Your task to perform on an android device: When is my next meeting? Image 0: 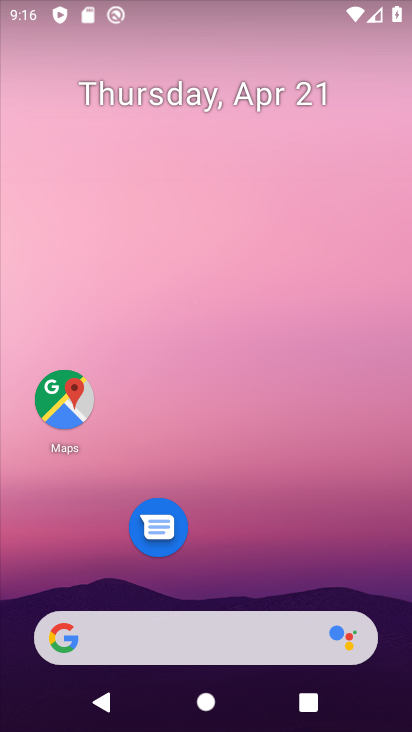
Step 0: drag from (190, 592) to (231, 81)
Your task to perform on an android device: When is my next meeting? Image 1: 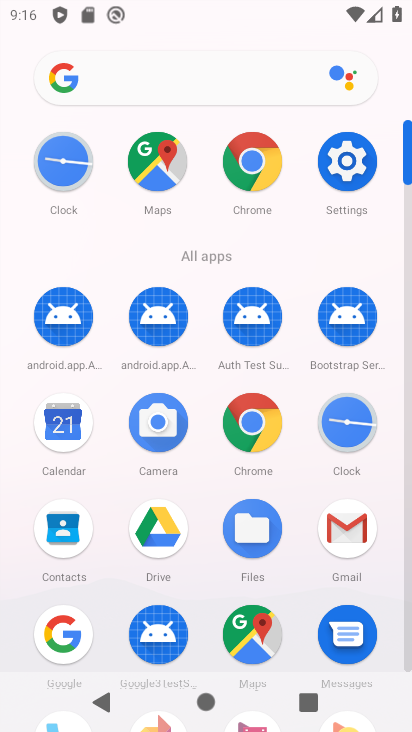
Step 1: click (70, 402)
Your task to perform on an android device: When is my next meeting? Image 2: 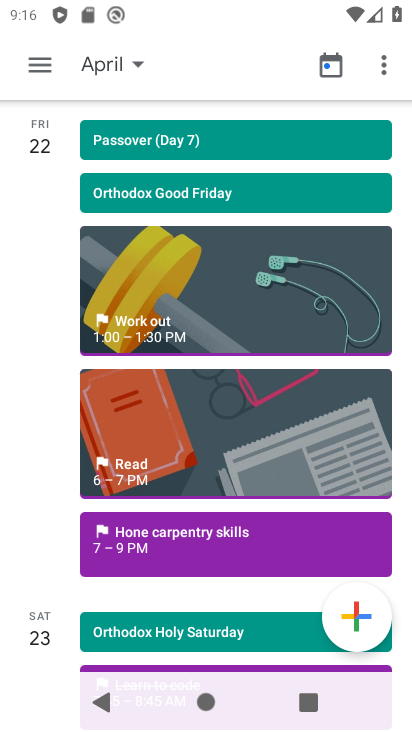
Step 2: click (125, 68)
Your task to perform on an android device: When is my next meeting? Image 3: 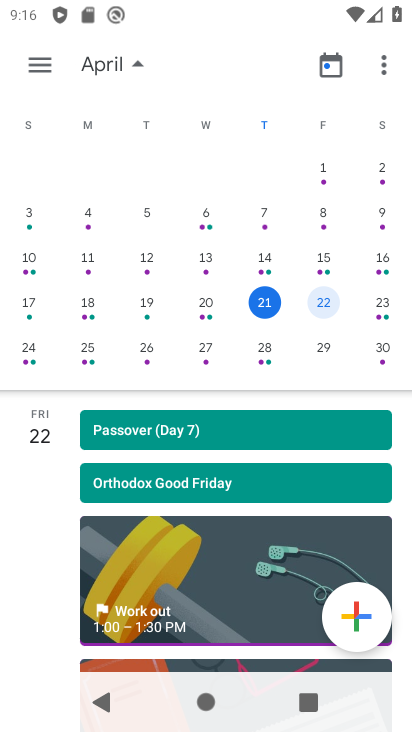
Step 3: click (314, 304)
Your task to perform on an android device: When is my next meeting? Image 4: 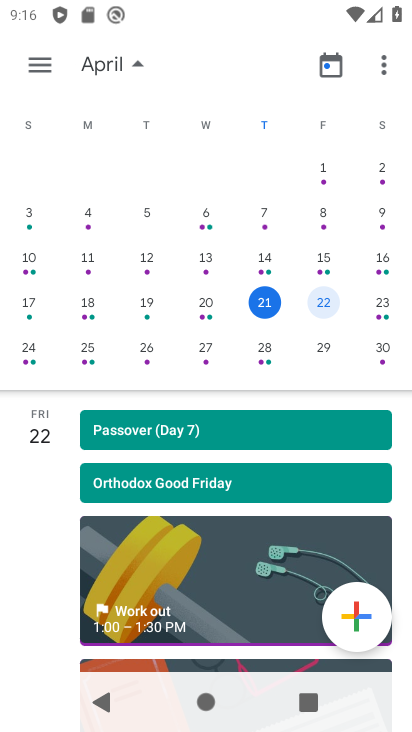
Step 4: click (374, 318)
Your task to perform on an android device: When is my next meeting? Image 5: 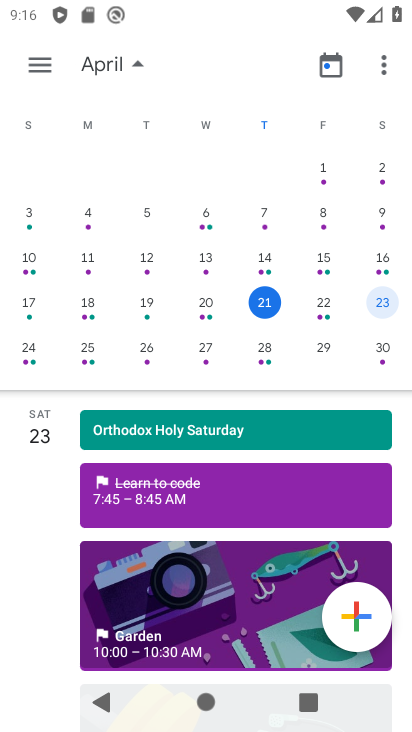
Step 5: click (33, 348)
Your task to perform on an android device: When is my next meeting? Image 6: 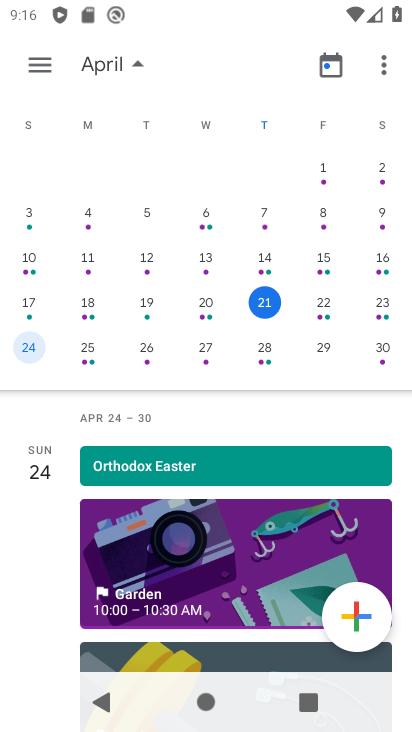
Step 6: click (73, 352)
Your task to perform on an android device: When is my next meeting? Image 7: 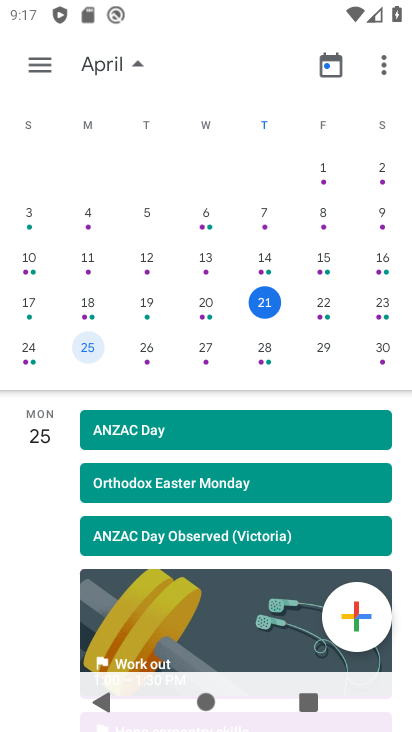
Step 7: click (157, 347)
Your task to perform on an android device: When is my next meeting? Image 8: 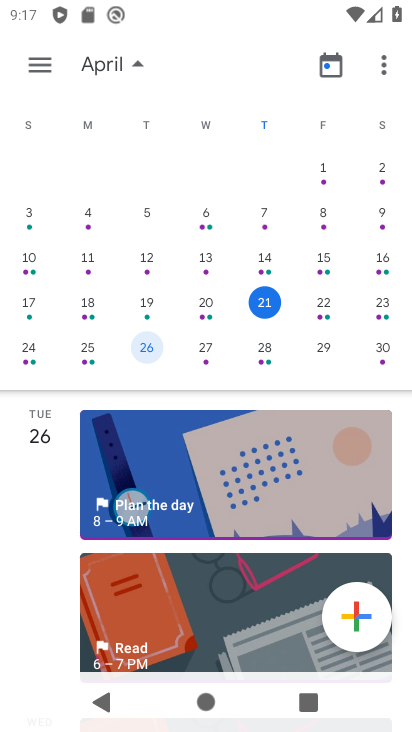
Step 8: click (192, 346)
Your task to perform on an android device: When is my next meeting? Image 9: 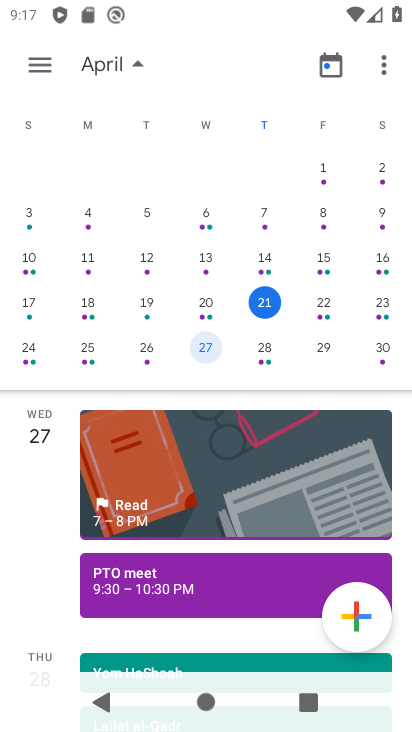
Step 9: click (255, 356)
Your task to perform on an android device: When is my next meeting? Image 10: 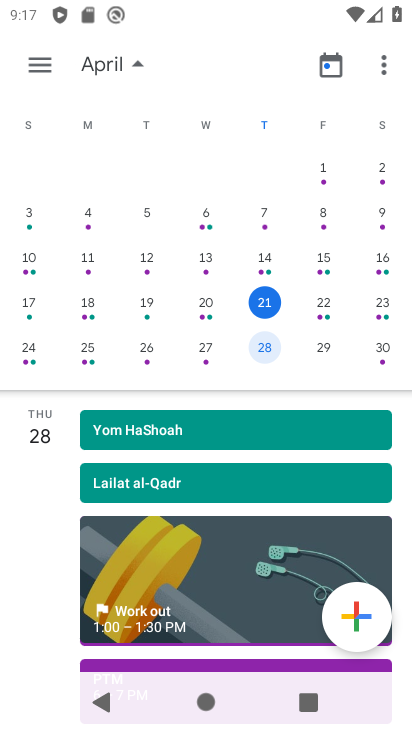
Step 10: click (320, 340)
Your task to perform on an android device: When is my next meeting? Image 11: 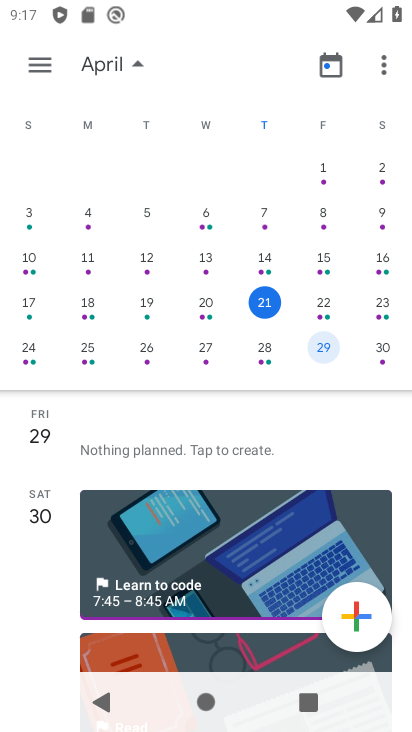
Step 11: click (325, 278)
Your task to perform on an android device: When is my next meeting? Image 12: 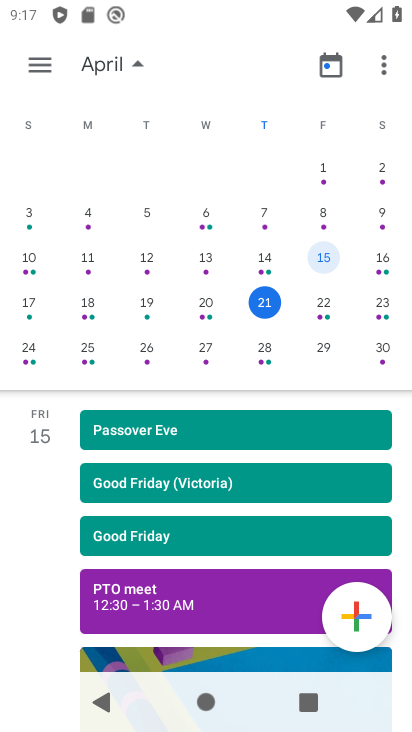
Step 12: click (319, 297)
Your task to perform on an android device: When is my next meeting? Image 13: 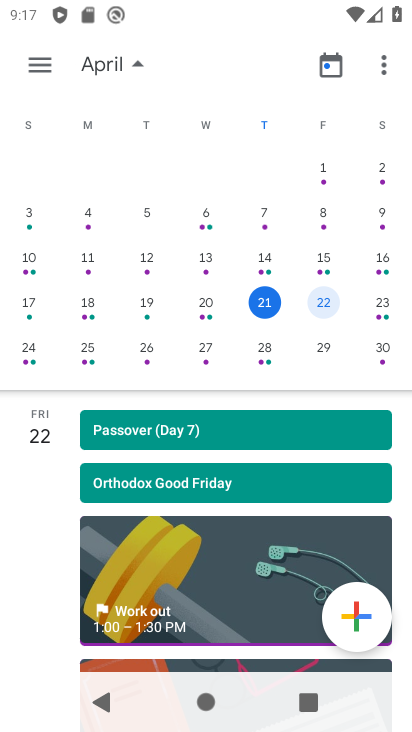
Step 13: click (371, 313)
Your task to perform on an android device: When is my next meeting? Image 14: 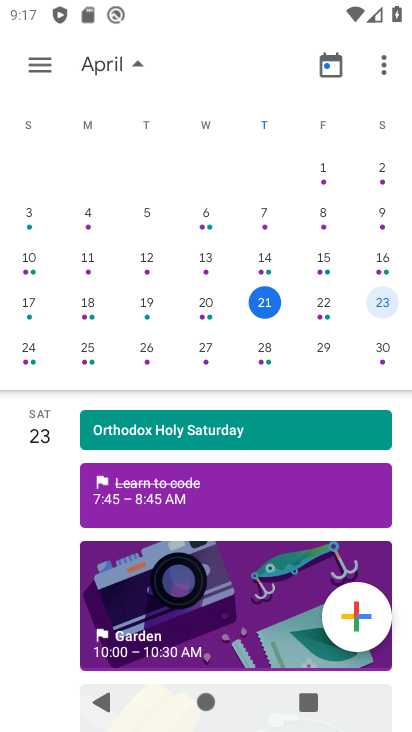
Step 14: click (40, 347)
Your task to perform on an android device: When is my next meeting? Image 15: 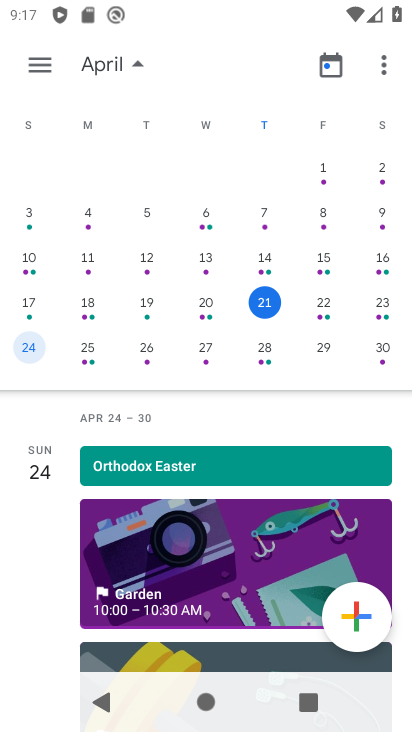
Step 15: click (83, 347)
Your task to perform on an android device: When is my next meeting? Image 16: 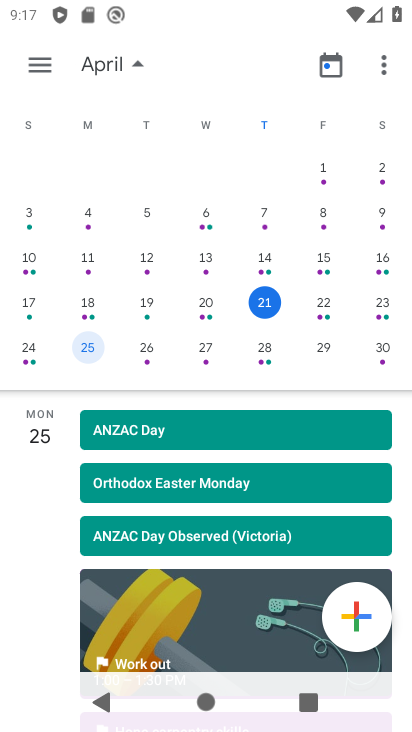
Step 16: click (93, 310)
Your task to perform on an android device: When is my next meeting? Image 17: 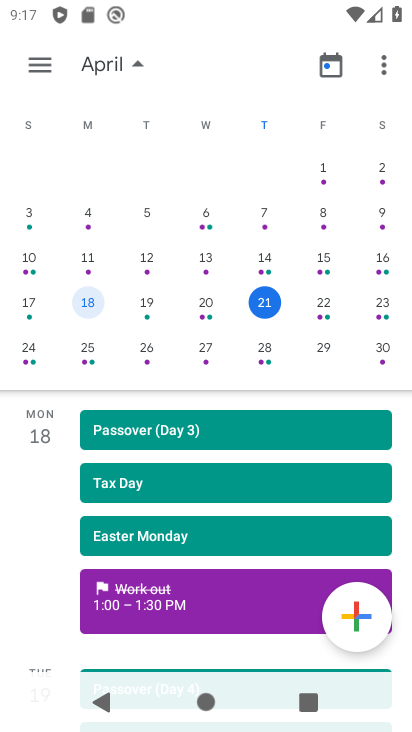
Step 17: click (94, 344)
Your task to perform on an android device: When is my next meeting? Image 18: 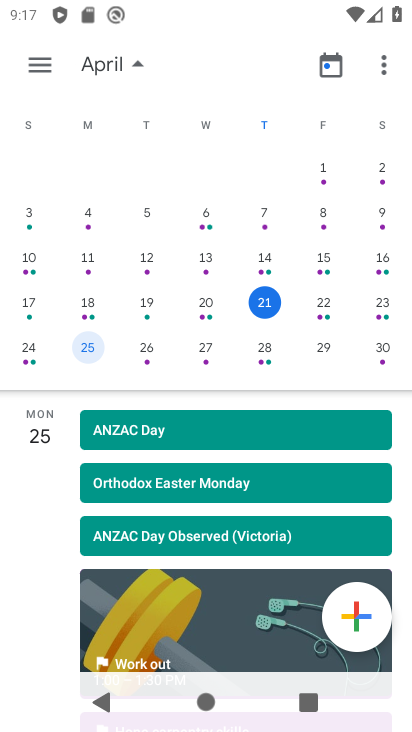
Step 18: drag from (229, 572) to (244, 510)
Your task to perform on an android device: When is my next meeting? Image 19: 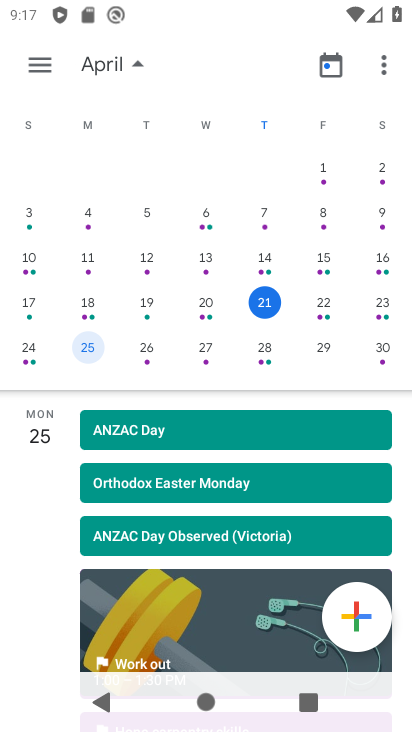
Step 19: click (149, 288)
Your task to perform on an android device: When is my next meeting? Image 20: 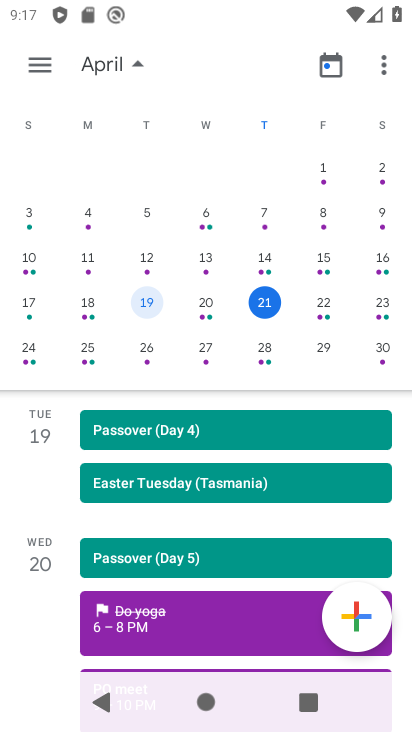
Step 20: click (156, 339)
Your task to perform on an android device: When is my next meeting? Image 21: 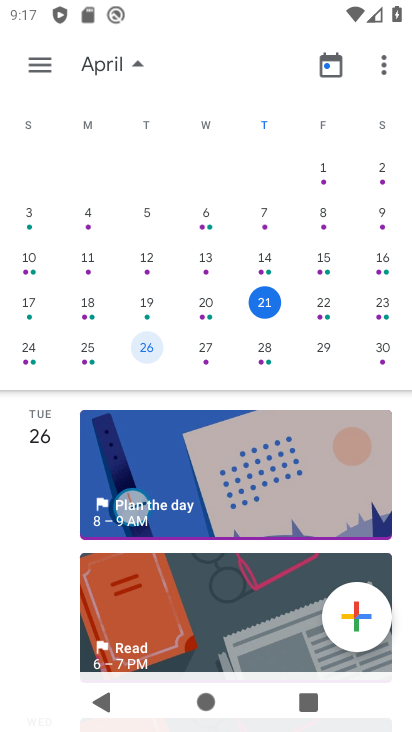
Step 21: click (200, 341)
Your task to perform on an android device: When is my next meeting? Image 22: 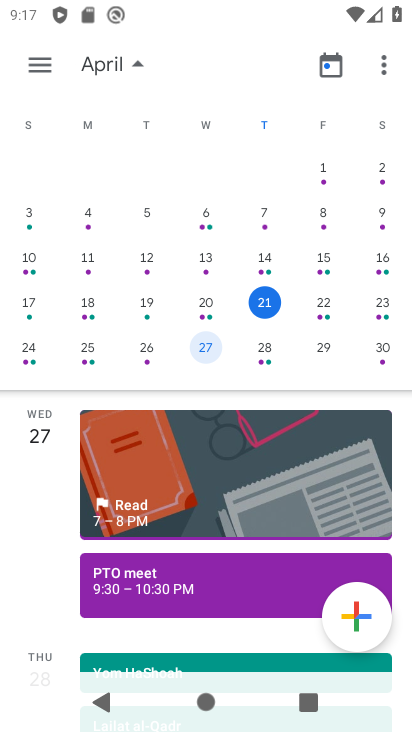
Step 22: click (200, 571)
Your task to perform on an android device: When is my next meeting? Image 23: 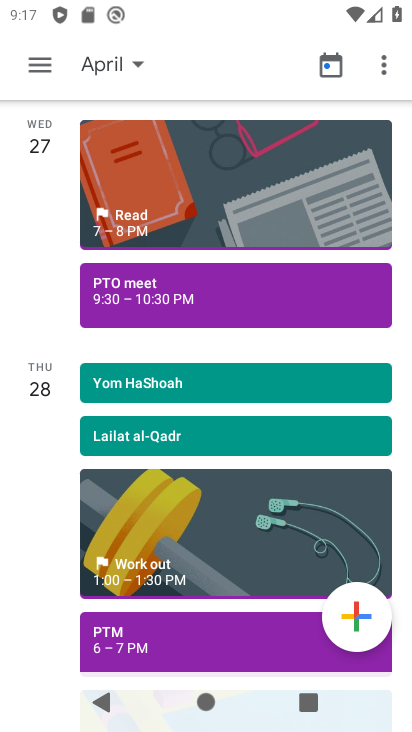
Step 23: click (223, 295)
Your task to perform on an android device: When is my next meeting? Image 24: 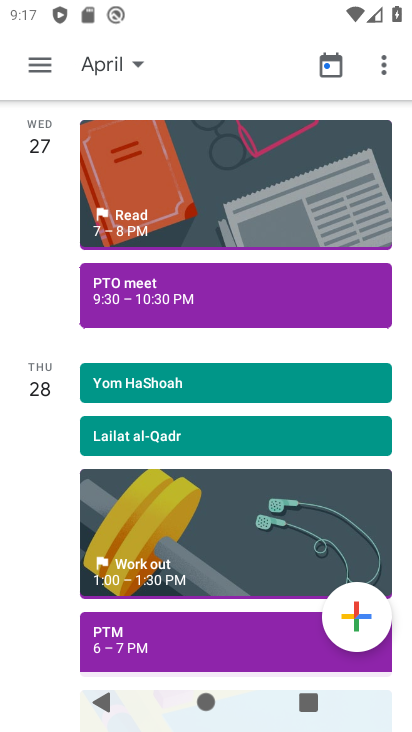
Step 24: task complete